Your task to perform on an android device: read, delete, or share a saved page in the chrome app Image 0: 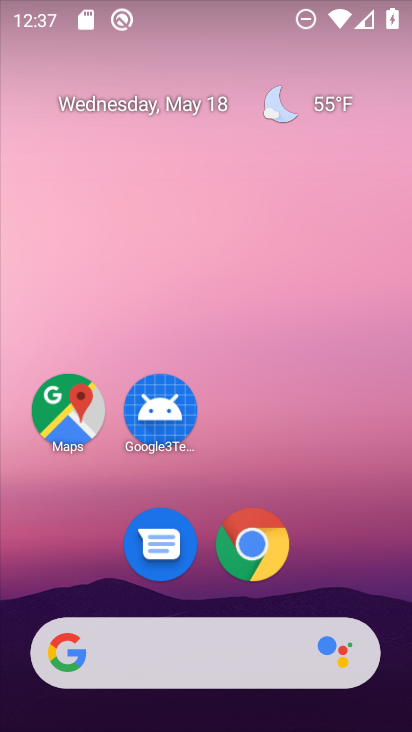
Step 0: drag from (207, 548) to (233, 78)
Your task to perform on an android device: read, delete, or share a saved page in the chrome app Image 1: 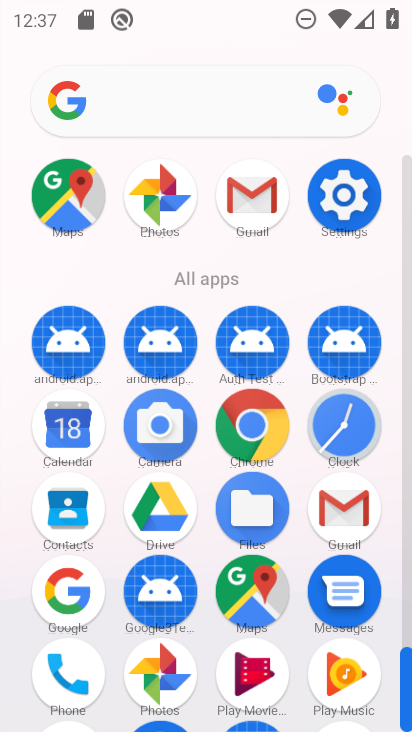
Step 1: click (263, 429)
Your task to perform on an android device: read, delete, or share a saved page in the chrome app Image 2: 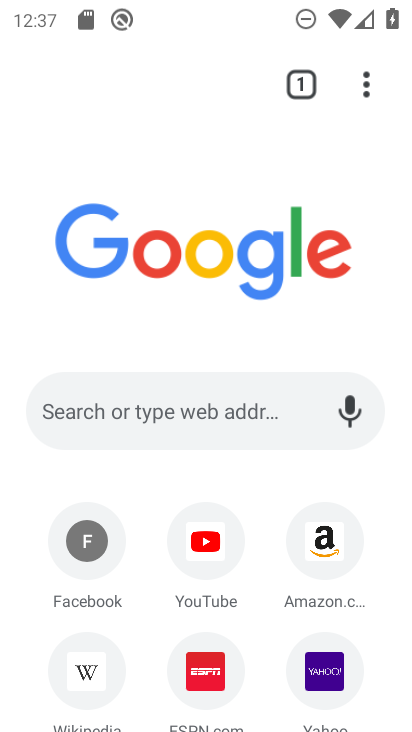
Step 2: click (363, 79)
Your task to perform on an android device: read, delete, or share a saved page in the chrome app Image 3: 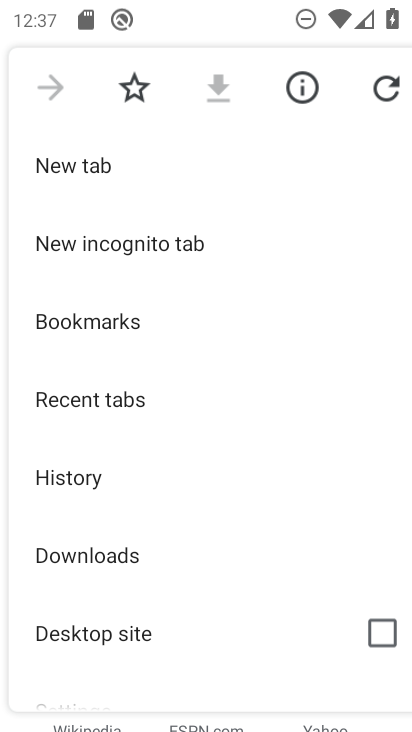
Step 3: click (93, 554)
Your task to perform on an android device: read, delete, or share a saved page in the chrome app Image 4: 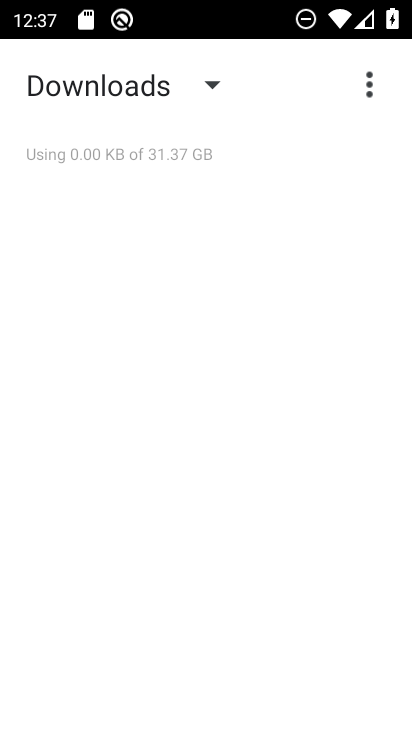
Step 4: task complete